Your task to perform on an android device: snooze an email in the gmail app Image 0: 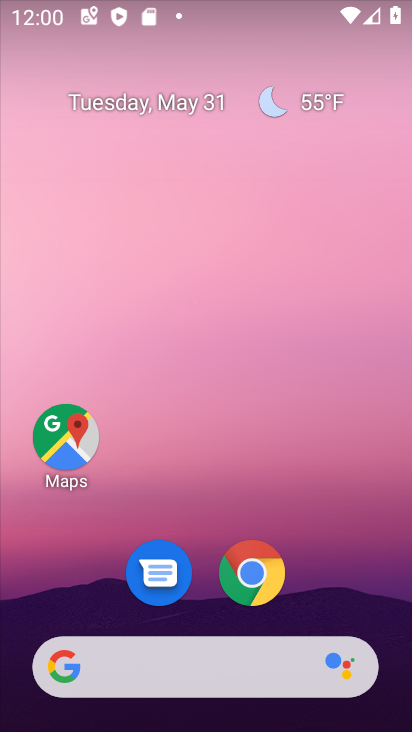
Step 0: drag from (313, 603) to (315, 37)
Your task to perform on an android device: snooze an email in the gmail app Image 1: 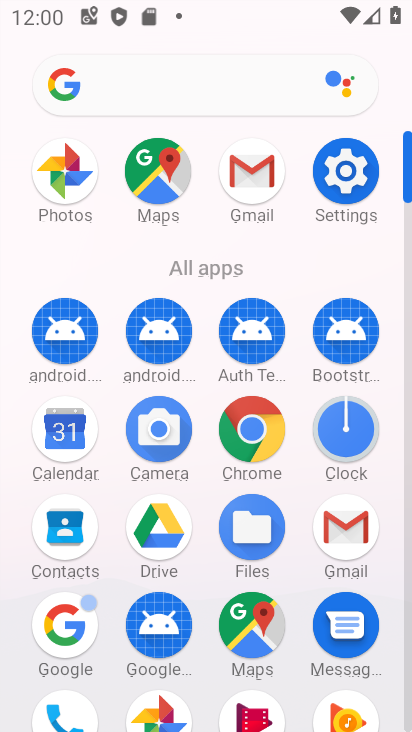
Step 1: click (243, 187)
Your task to perform on an android device: snooze an email in the gmail app Image 2: 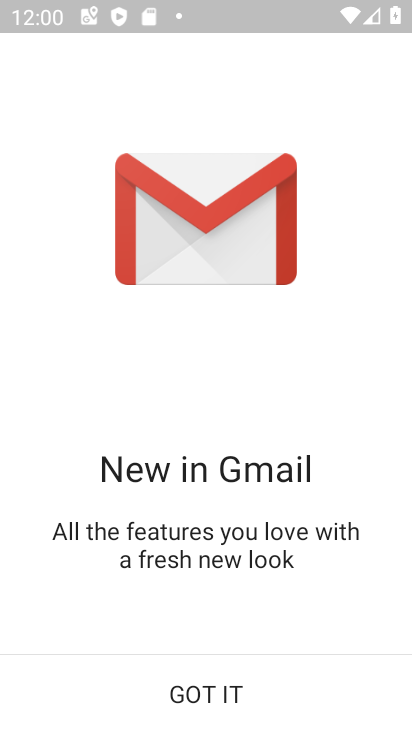
Step 2: click (165, 704)
Your task to perform on an android device: snooze an email in the gmail app Image 3: 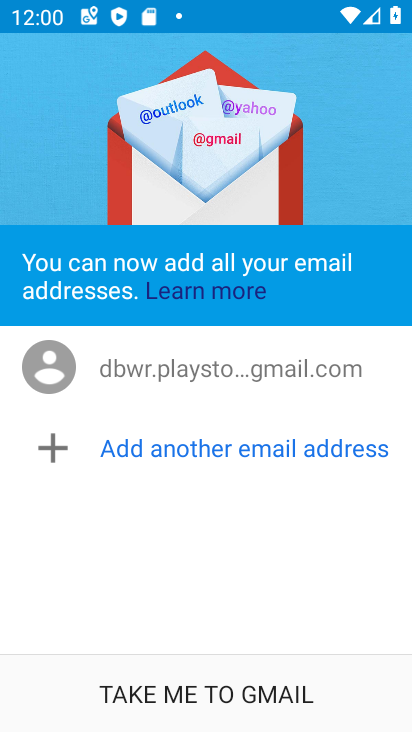
Step 3: click (165, 701)
Your task to perform on an android device: snooze an email in the gmail app Image 4: 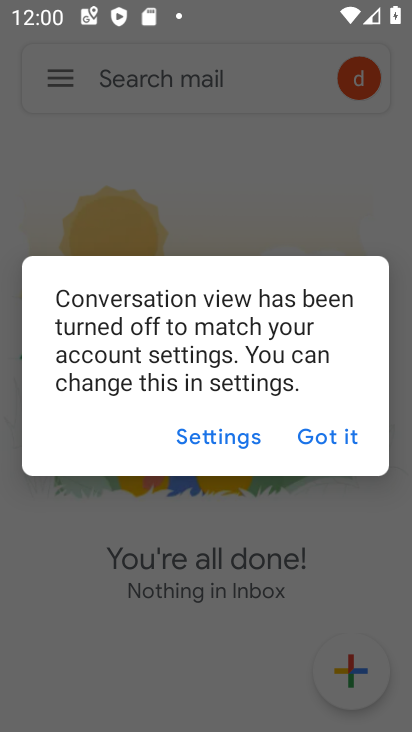
Step 4: click (338, 438)
Your task to perform on an android device: snooze an email in the gmail app Image 5: 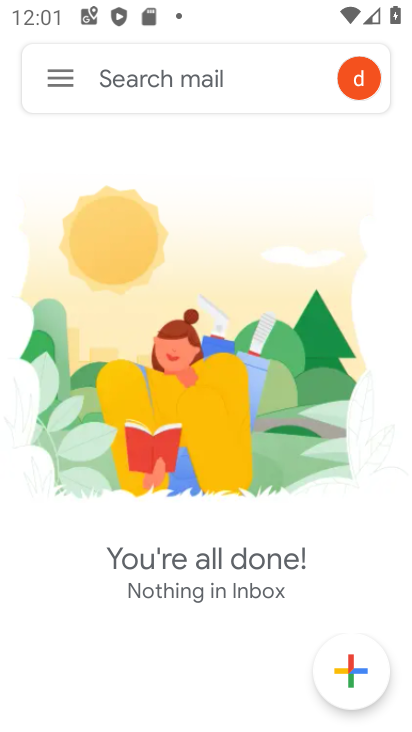
Step 5: click (50, 80)
Your task to perform on an android device: snooze an email in the gmail app Image 6: 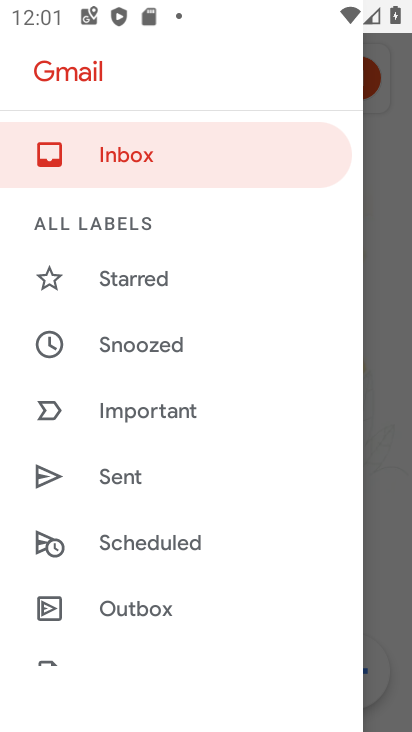
Step 6: drag from (130, 604) to (201, 272)
Your task to perform on an android device: snooze an email in the gmail app Image 7: 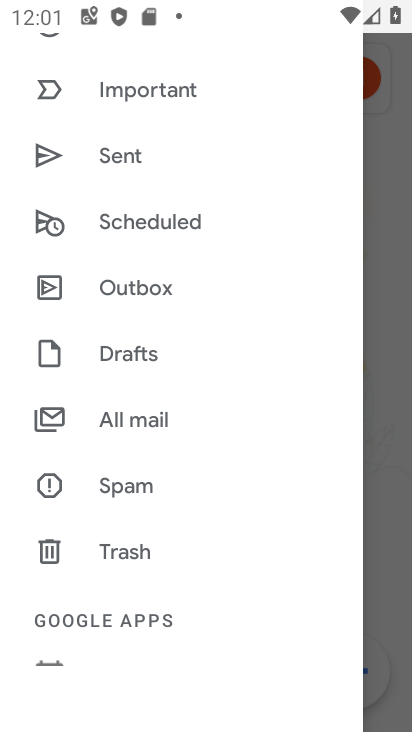
Step 7: click (161, 423)
Your task to perform on an android device: snooze an email in the gmail app Image 8: 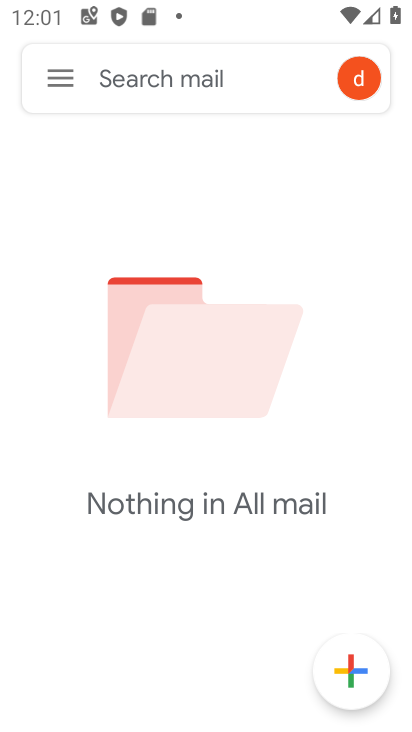
Step 8: task complete